Your task to perform on an android device: turn on the 24-hour format for clock Image 0: 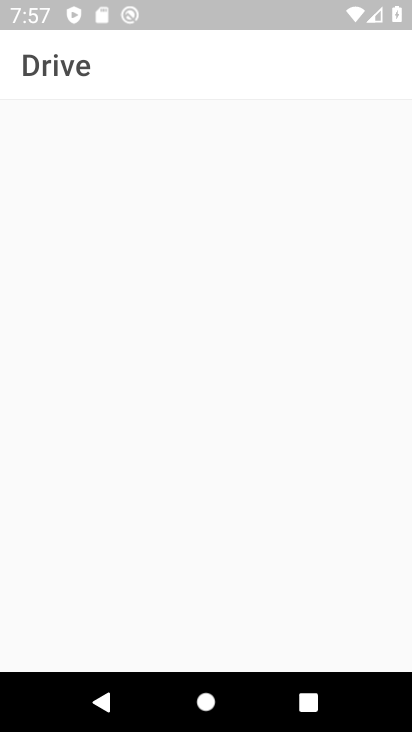
Step 0: press home button
Your task to perform on an android device: turn on the 24-hour format for clock Image 1: 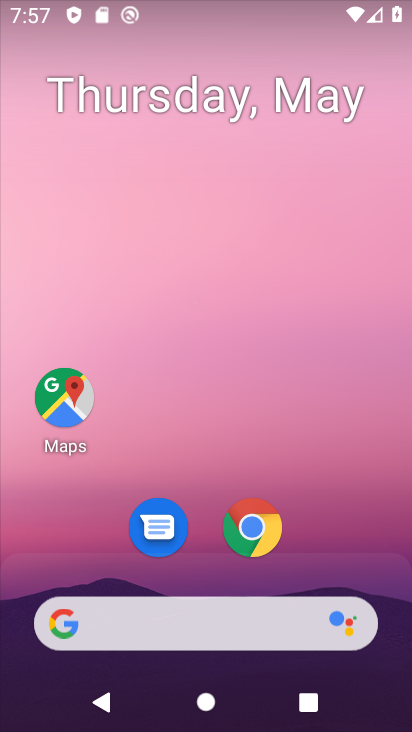
Step 1: drag from (331, 553) to (255, 66)
Your task to perform on an android device: turn on the 24-hour format for clock Image 2: 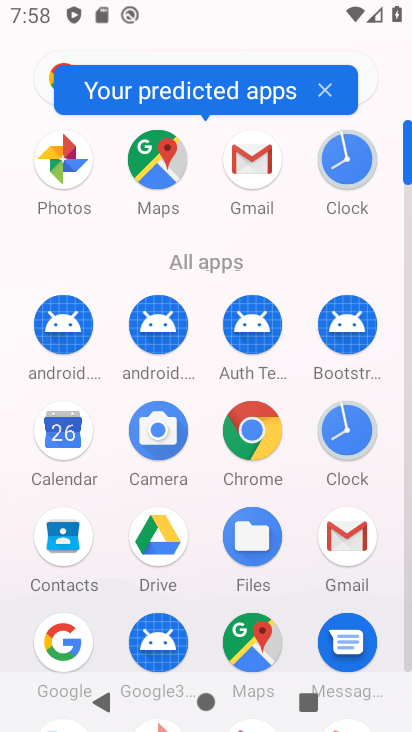
Step 2: click (347, 160)
Your task to perform on an android device: turn on the 24-hour format for clock Image 3: 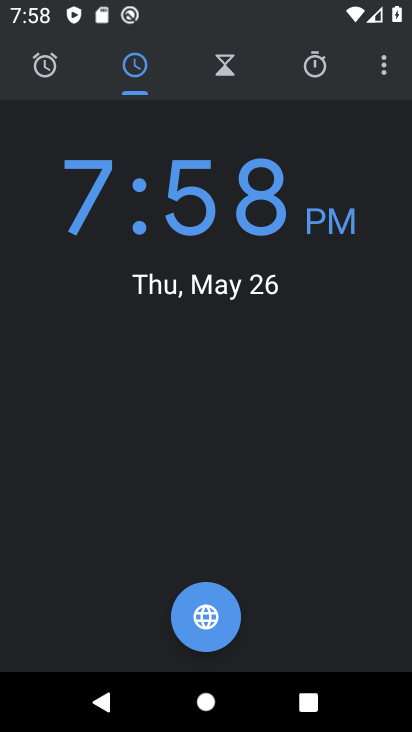
Step 3: click (381, 65)
Your task to perform on an android device: turn on the 24-hour format for clock Image 4: 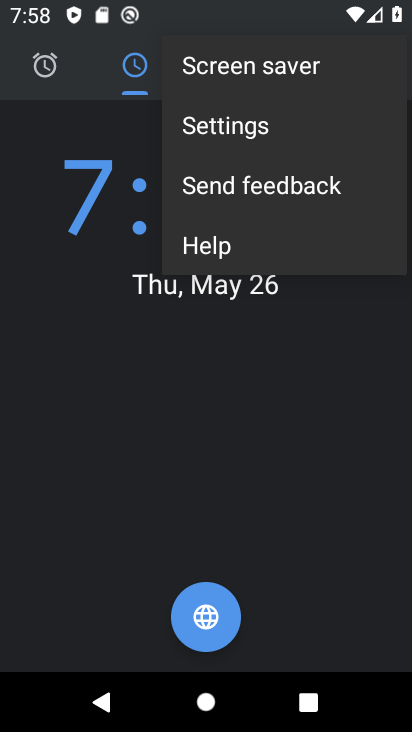
Step 4: click (264, 124)
Your task to perform on an android device: turn on the 24-hour format for clock Image 5: 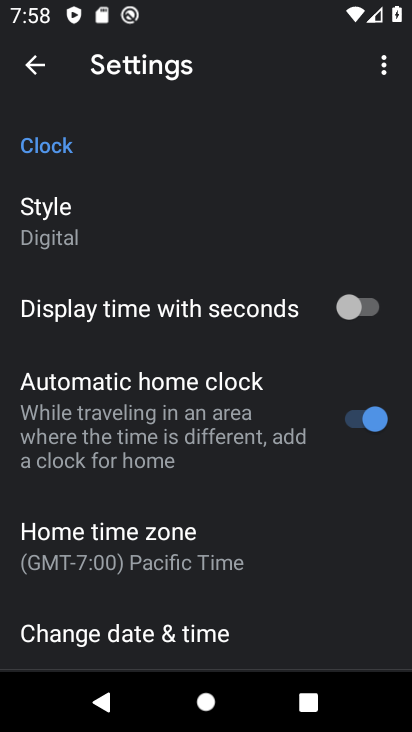
Step 5: drag from (100, 597) to (134, 479)
Your task to perform on an android device: turn on the 24-hour format for clock Image 6: 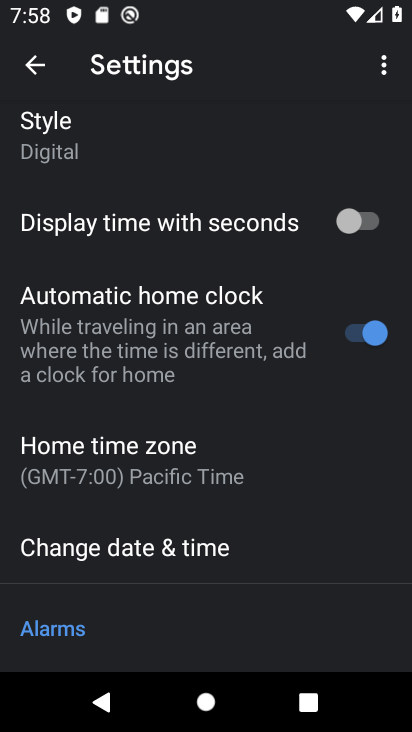
Step 6: click (162, 548)
Your task to perform on an android device: turn on the 24-hour format for clock Image 7: 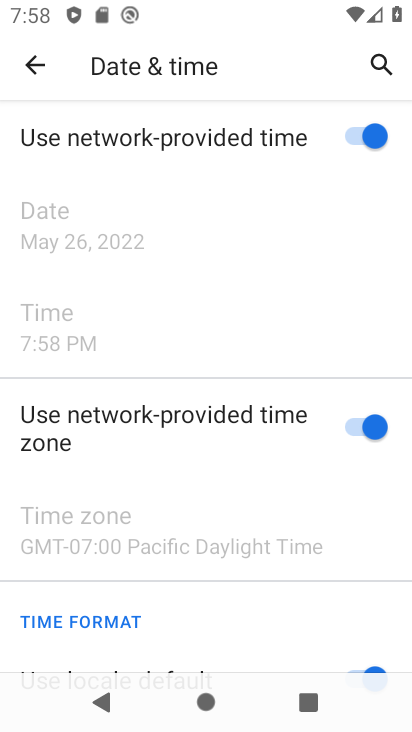
Step 7: drag from (180, 599) to (304, 431)
Your task to perform on an android device: turn on the 24-hour format for clock Image 8: 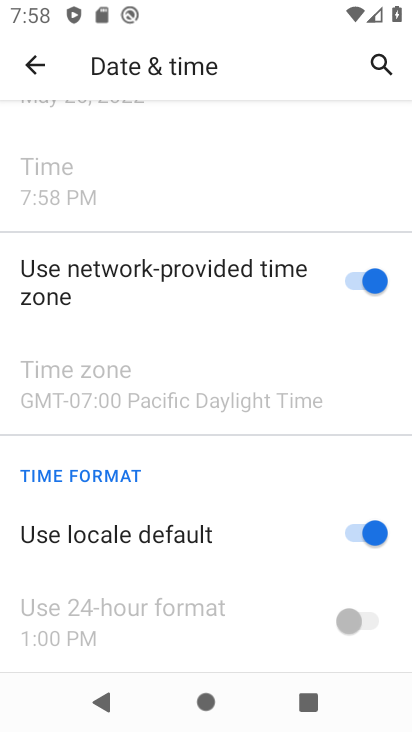
Step 8: click (346, 626)
Your task to perform on an android device: turn on the 24-hour format for clock Image 9: 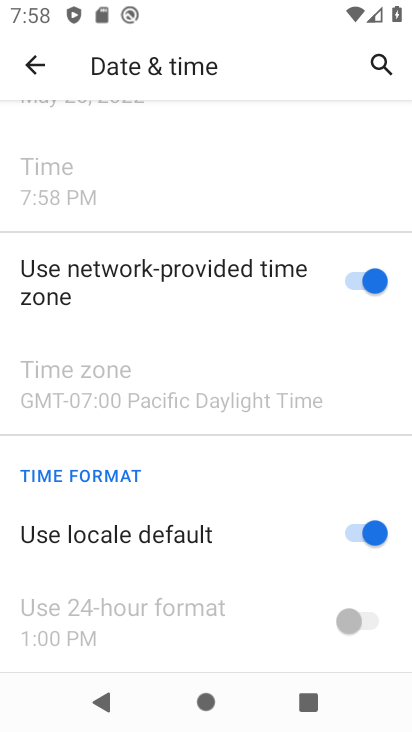
Step 9: click (357, 533)
Your task to perform on an android device: turn on the 24-hour format for clock Image 10: 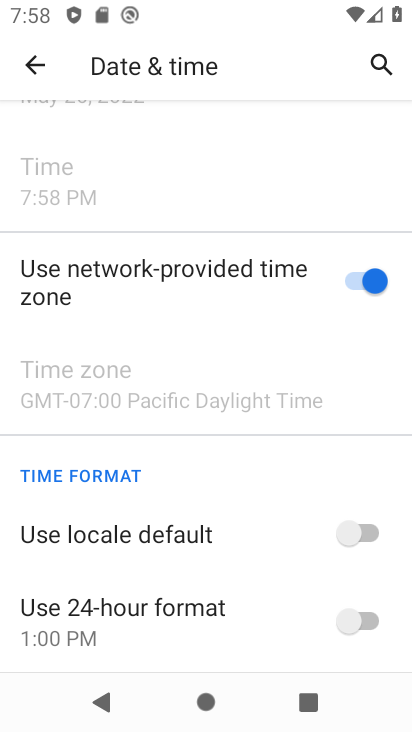
Step 10: click (347, 628)
Your task to perform on an android device: turn on the 24-hour format for clock Image 11: 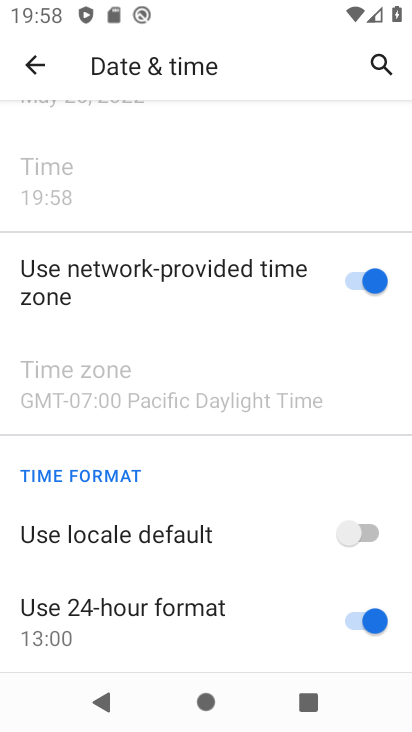
Step 11: task complete